Your task to perform on an android device: View the shopping cart on costco. Add razer naga to the cart on costco, then select checkout. Image 0: 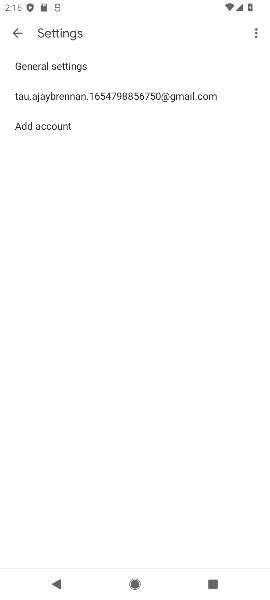
Step 0: press home button
Your task to perform on an android device: View the shopping cart on costco. Add razer naga to the cart on costco, then select checkout. Image 1: 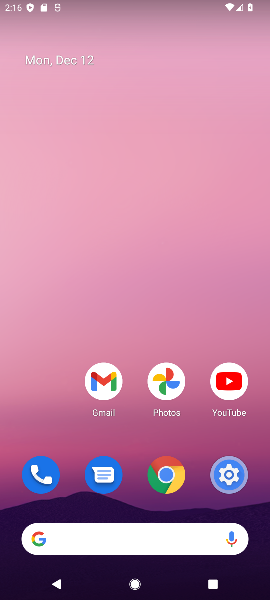
Step 1: click (168, 477)
Your task to perform on an android device: View the shopping cart on costco. Add razer naga to the cart on costco, then select checkout. Image 2: 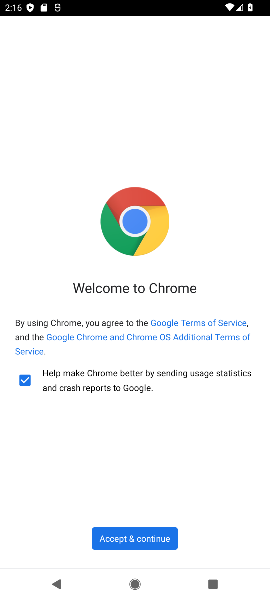
Step 2: click (132, 540)
Your task to perform on an android device: View the shopping cart on costco. Add razer naga to the cart on costco, then select checkout. Image 3: 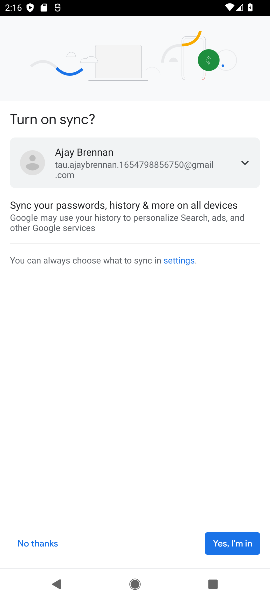
Step 3: click (239, 543)
Your task to perform on an android device: View the shopping cart on costco. Add razer naga to the cart on costco, then select checkout. Image 4: 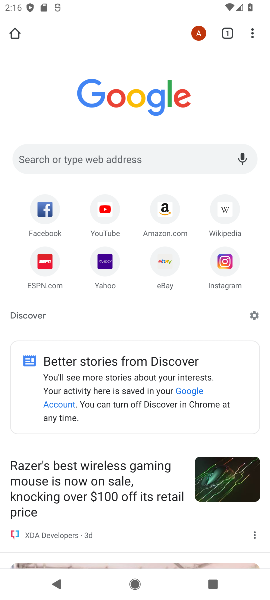
Step 4: click (124, 160)
Your task to perform on an android device: View the shopping cart on costco. Add razer naga to the cart on costco, then select checkout. Image 5: 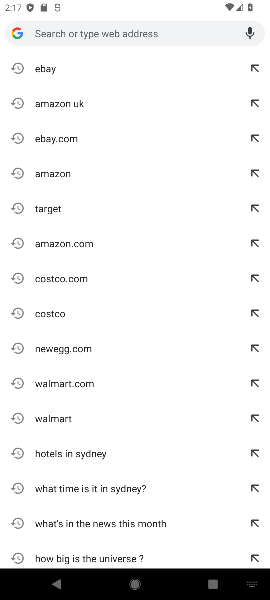
Step 5: type "costco"
Your task to perform on an android device: View the shopping cart on costco. Add razer naga to the cart on costco, then select checkout. Image 6: 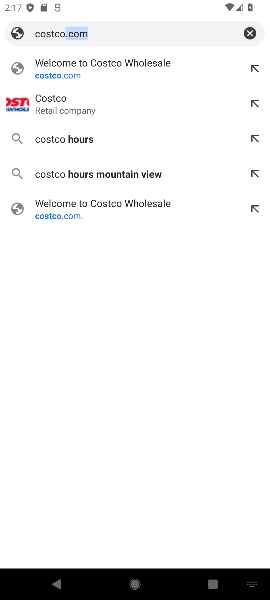
Step 6: click (72, 76)
Your task to perform on an android device: View the shopping cart on costco. Add razer naga to the cart on costco, then select checkout. Image 7: 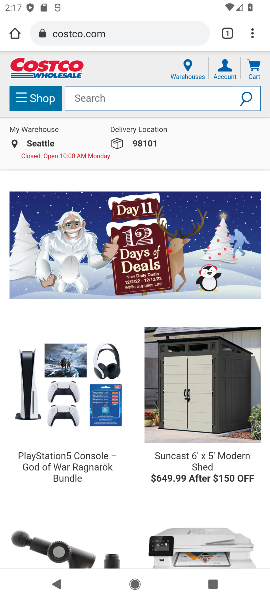
Step 7: click (256, 65)
Your task to perform on an android device: View the shopping cart on costco. Add razer naga to the cart on costco, then select checkout. Image 8: 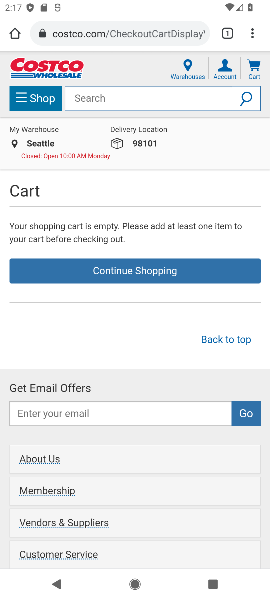
Step 8: click (166, 101)
Your task to perform on an android device: View the shopping cart on costco. Add razer naga to the cart on costco, then select checkout. Image 9: 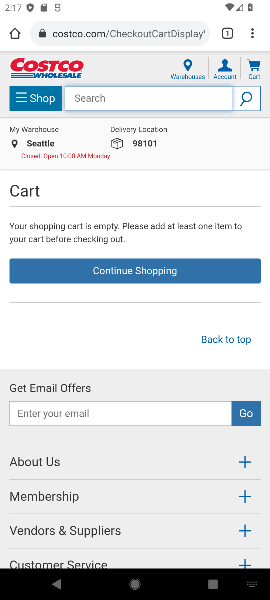
Step 9: click (127, 103)
Your task to perform on an android device: View the shopping cart on costco. Add razer naga to the cart on costco, then select checkout. Image 10: 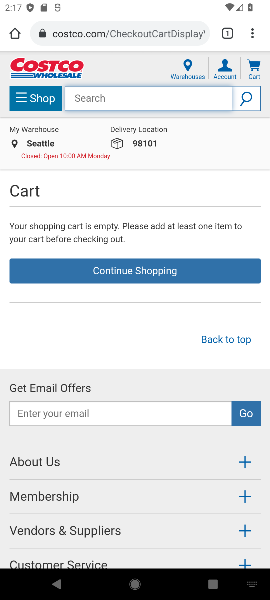
Step 10: type "razer naga"
Your task to perform on an android device: View the shopping cart on costco. Add razer naga to the cart on costco, then select checkout. Image 11: 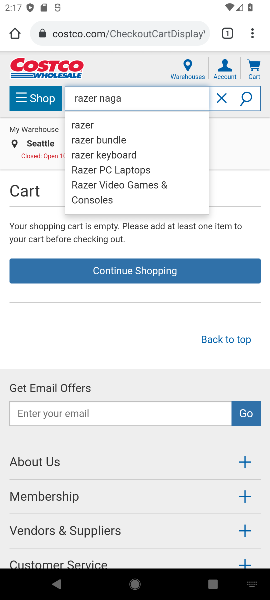
Step 11: click (91, 125)
Your task to perform on an android device: View the shopping cart on costco. Add razer naga to the cart on costco, then select checkout. Image 12: 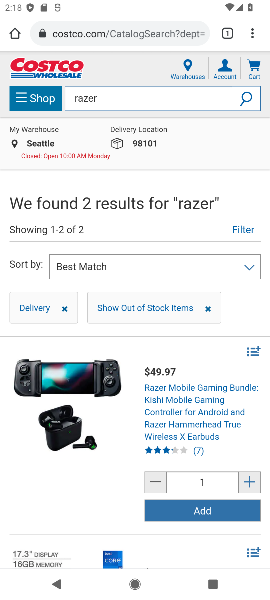
Step 12: click (213, 514)
Your task to perform on an android device: View the shopping cart on costco. Add razer naga to the cart on costco, then select checkout. Image 13: 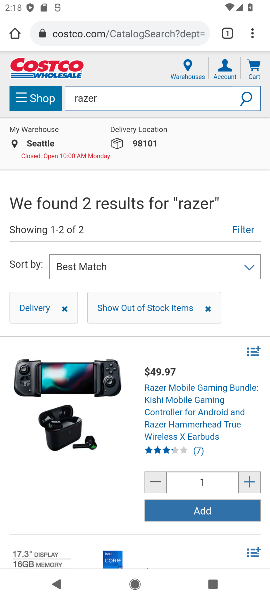
Step 13: click (201, 510)
Your task to perform on an android device: View the shopping cart on costco. Add razer naga to the cart on costco, then select checkout. Image 14: 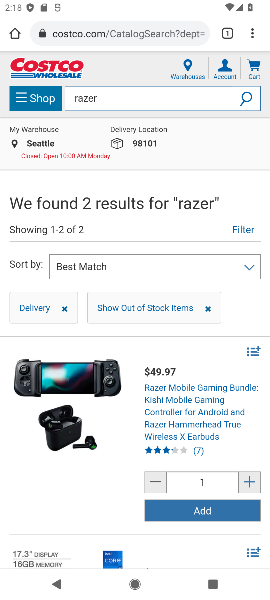
Step 14: click (116, 415)
Your task to perform on an android device: View the shopping cart on costco. Add razer naga to the cart on costco, then select checkout. Image 15: 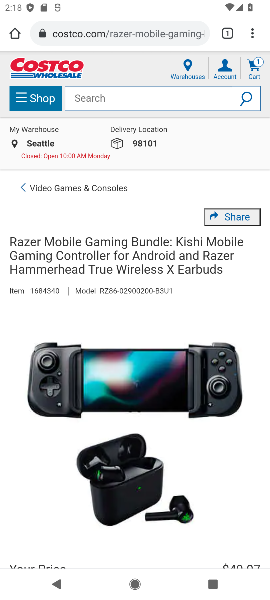
Step 15: click (252, 67)
Your task to perform on an android device: View the shopping cart on costco. Add razer naga to the cart on costco, then select checkout. Image 16: 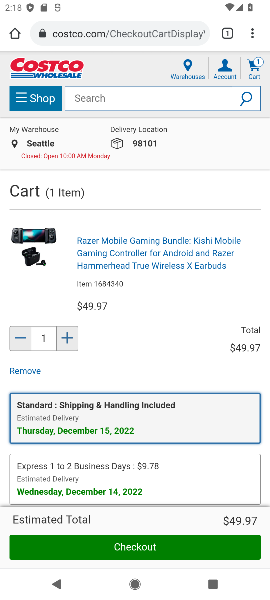
Step 16: click (150, 548)
Your task to perform on an android device: View the shopping cart on costco. Add razer naga to the cart on costco, then select checkout. Image 17: 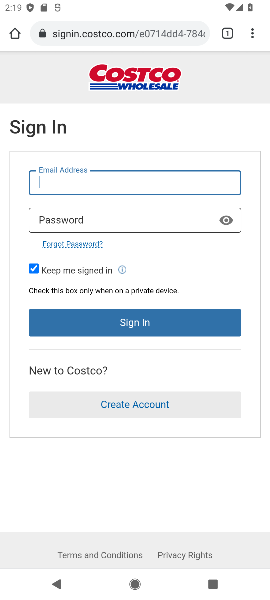
Step 17: task complete